Your task to perform on an android device: check storage Image 0: 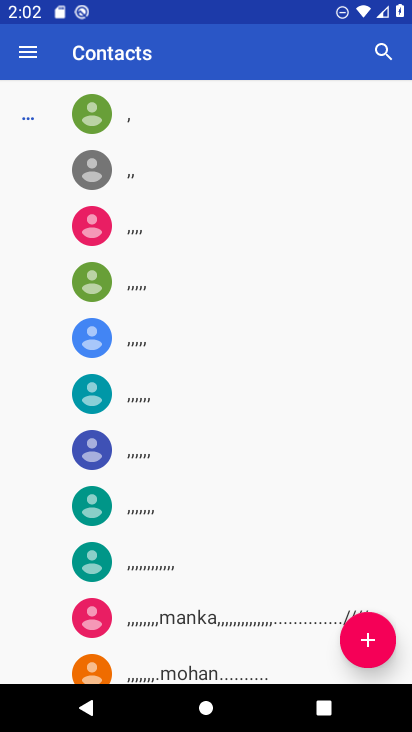
Step 0: press home button
Your task to perform on an android device: check storage Image 1: 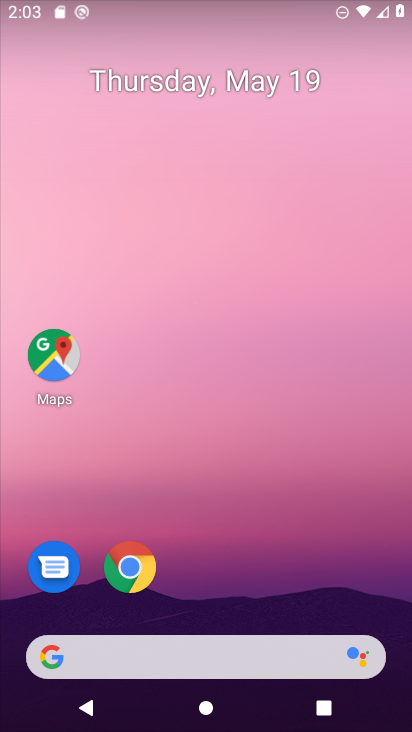
Step 1: drag from (252, 546) to (287, 84)
Your task to perform on an android device: check storage Image 2: 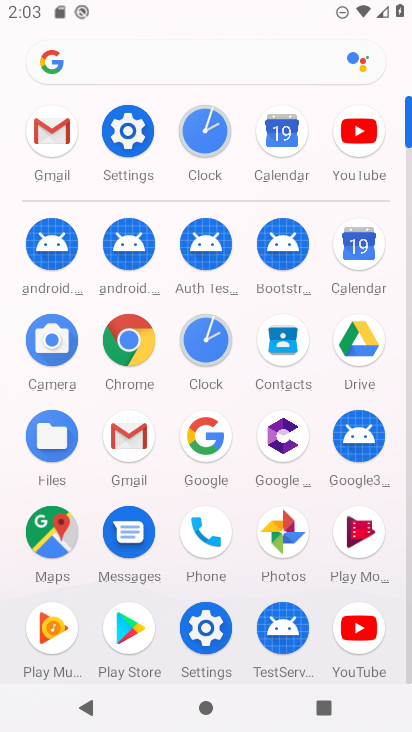
Step 2: click (130, 129)
Your task to perform on an android device: check storage Image 3: 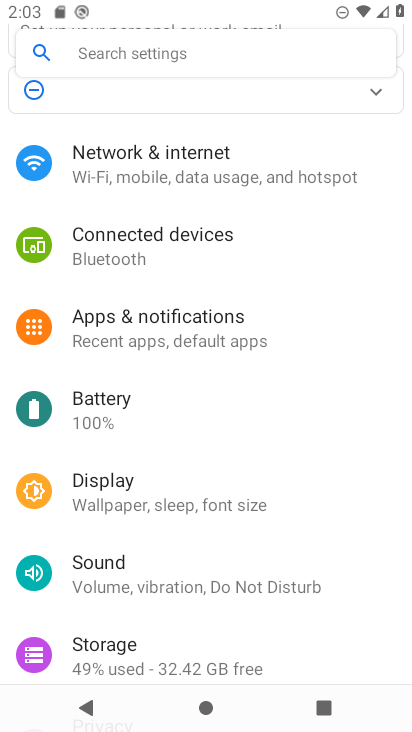
Step 3: click (173, 654)
Your task to perform on an android device: check storage Image 4: 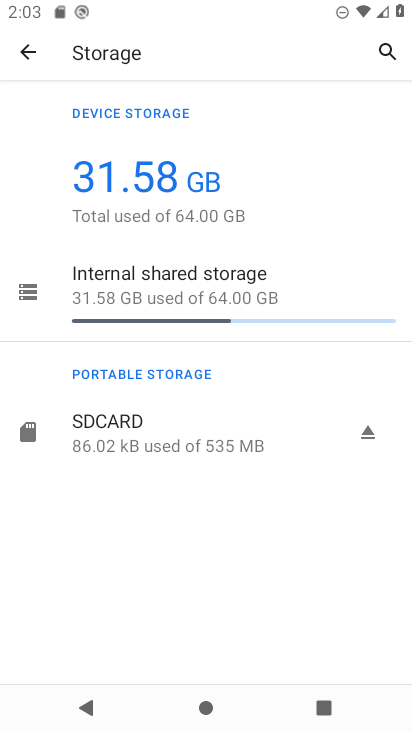
Step 4: task complete